Your task to perform on an android device: turn off javascript in the chrome app Image 0: 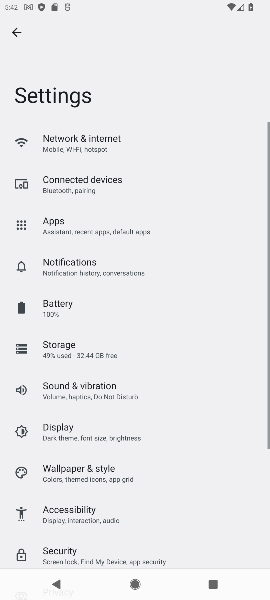
Step 0: press home button
Your task to perform on an android device: turn off javascript in the chrome app Image 1: 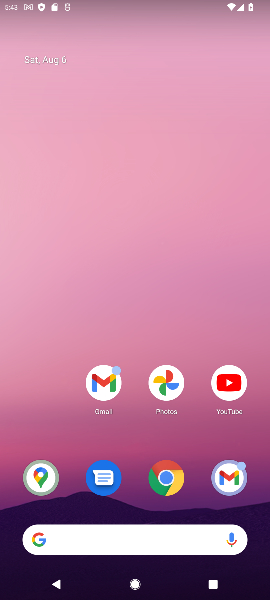
Step 1: click (173, 472)
Your task to perform on an android device: turn off javascript in the chrome app Image 2: 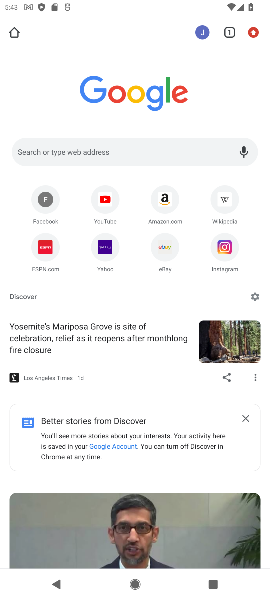
Step 2: drag from (252, 33) to (133, 315)
Your task to perform on an android device: turn off javascript in the chrome app Image 3: 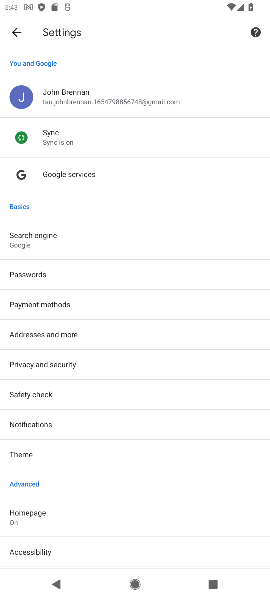
Step 3: drag from (173, 485) to (180, 225)
Your task to perform on an android device: turn off javascript in the chrome app Image 4: 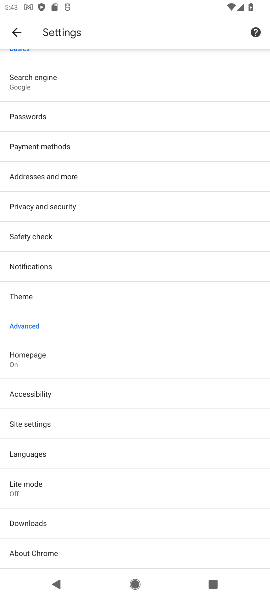
Step 4: click (18, 425)
Your task to perform on an android device: turn off javascript in the chrome app Image 5: 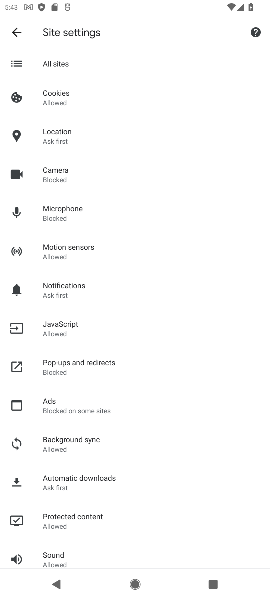
Step 5: click (53, 330)
Your task to perform on an android device: turn off javascript in the chrome app Image 6: 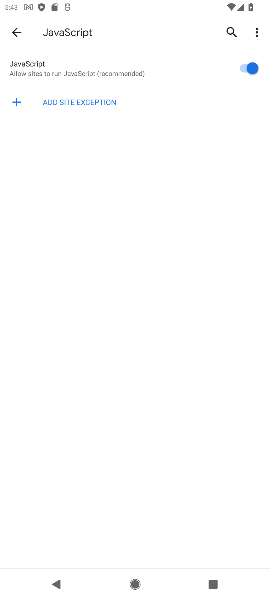
Step 6: click (252, 69)
Your task to perform on an android device: turn off javascript in the chrome app Image 7: 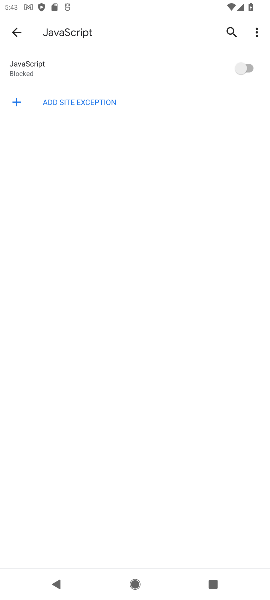
Step 7: task complete